Your task to perform on an android device: manage bookmarks in the chrome app Image 0: 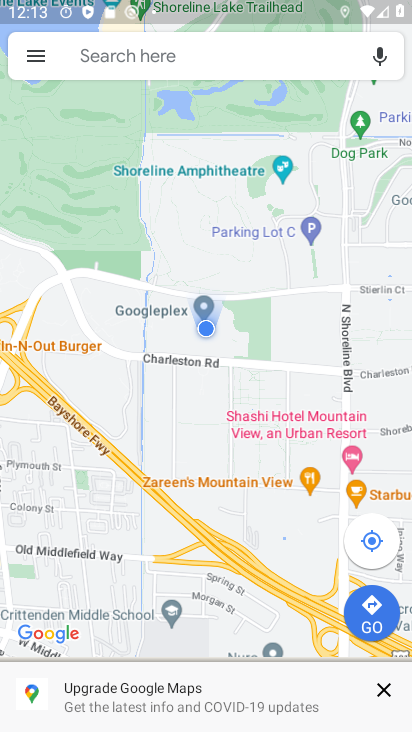
Step 0: press home button
Your task to perform on an android device: manage bookmarks in the chrome app Image 1: 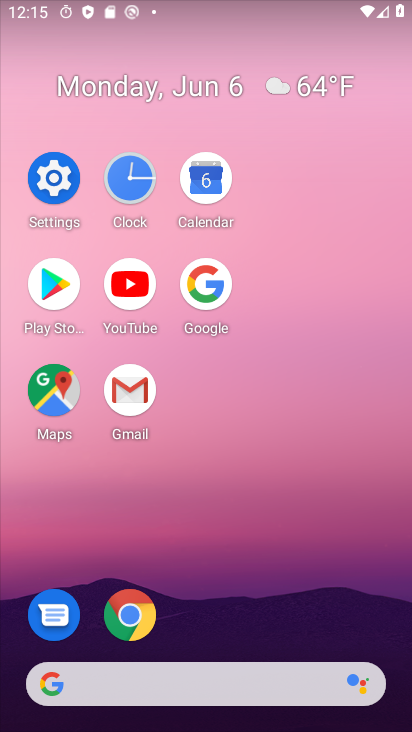
Step 1: click (138, 610)
Your task to perform on an android device: manage bookmarks in the chrome app Image 2: 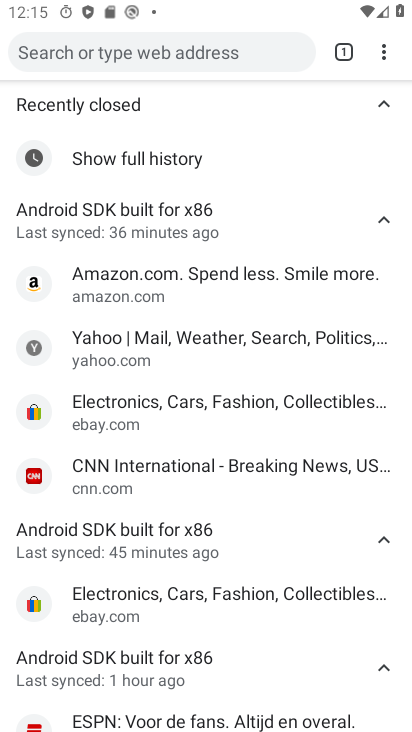
Step 2: click (378, 46)
Your task to perform on an android device: manage bookmarks in the chrome app Image 3: 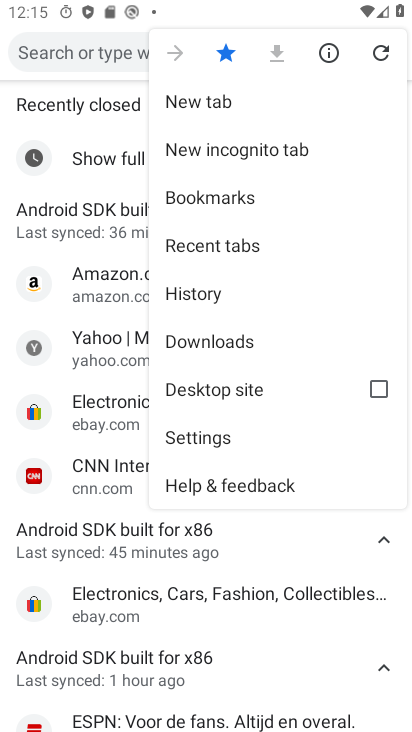
Step 3: click (220, 203)
Your task to perform on an android device: manage bookmarks in the chrome app Image 4: 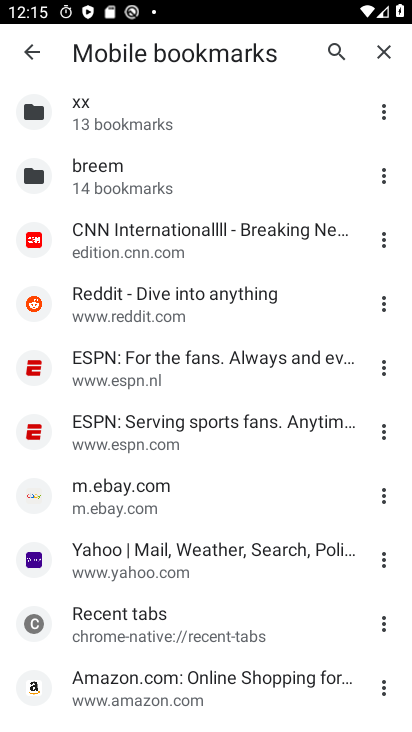
Step 4: click (387, 109)
Your task to perform on an android device: manage bookmarks in the chrome app Image 5: 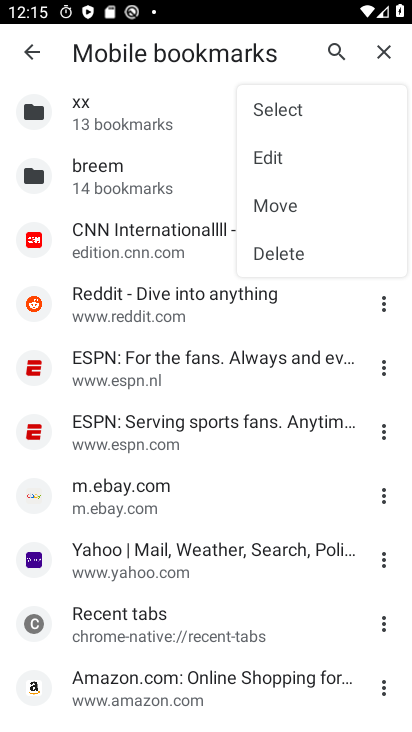
Step 5: click (271, 234)
Your task to perform on an android device: manage bookmarks in the chrome app Image 6: 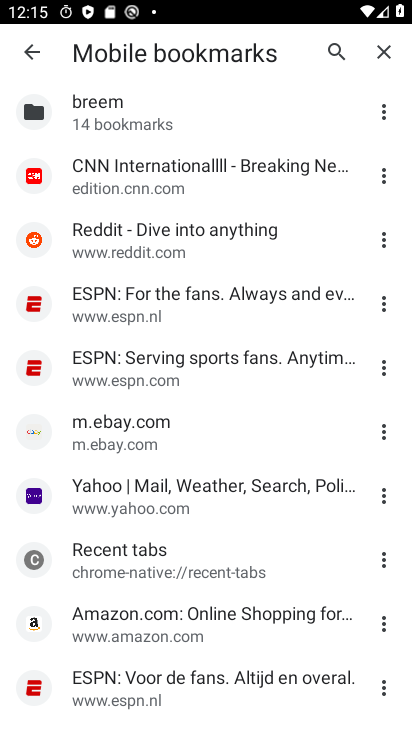
Step 6: task complete